Your task to perform on an android device: turn on sleep mode Image 0: 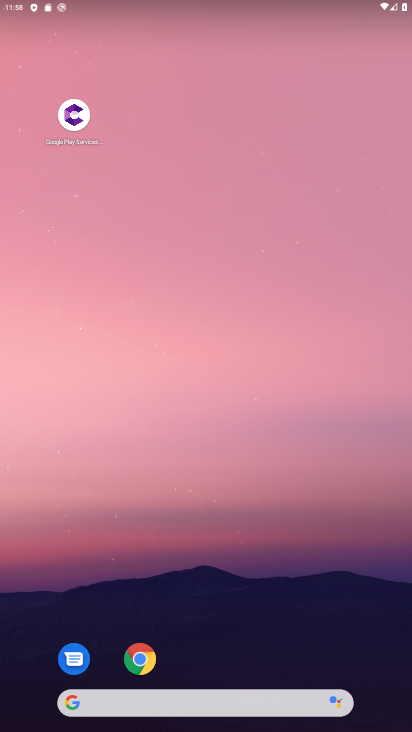
Step 0: drag from (239, 573) to (236, 8)
Your task to perform on an android device: turn on sleep mode Image 1: 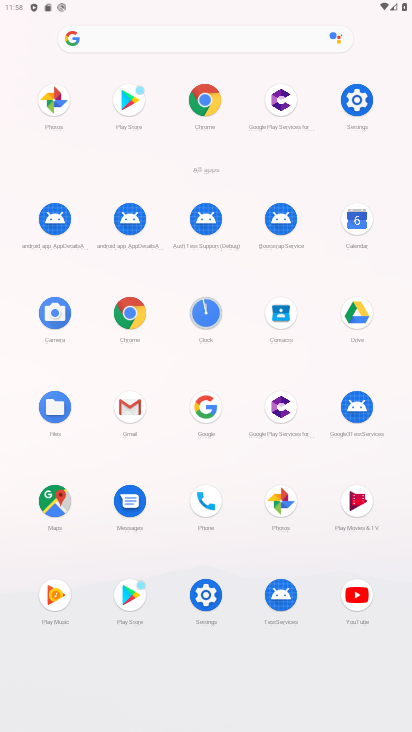
Step 1: click (339, 104)
Your task to perform on an android device: turn on sleep mode Image 2: 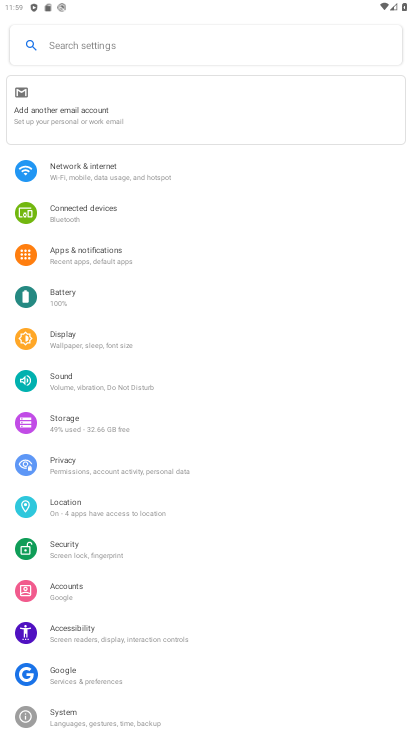
Step 2: click (109, 34)
Your task to perform on an android device: turn on sleep mode Image 3: 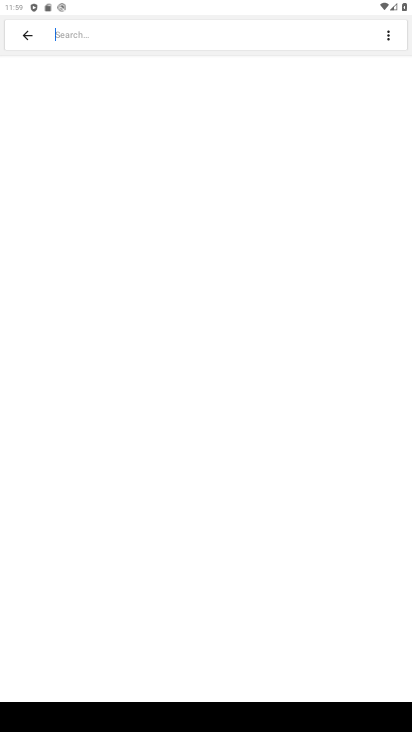
Step 3: type "sleep mode"
Your task to perform on an android device: turn on sleep mode Image 4: 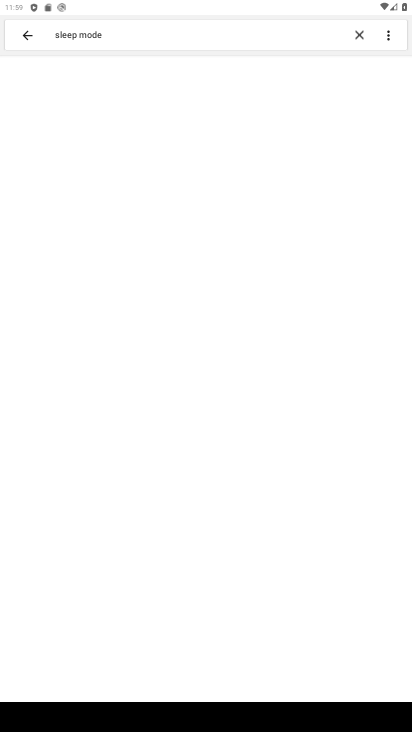
Step 4: task complete